Your task to perform on an android device: delete a single message in the gmail app Image 0: 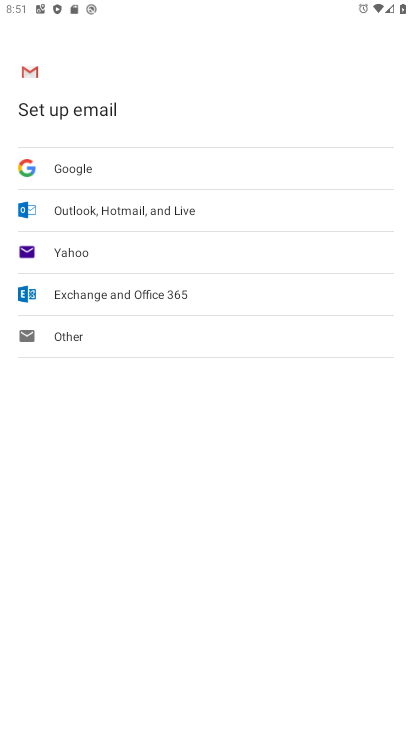
Step 0: press home button
Your task to perform on an android device: delete a single message in the gmail app Image 1: 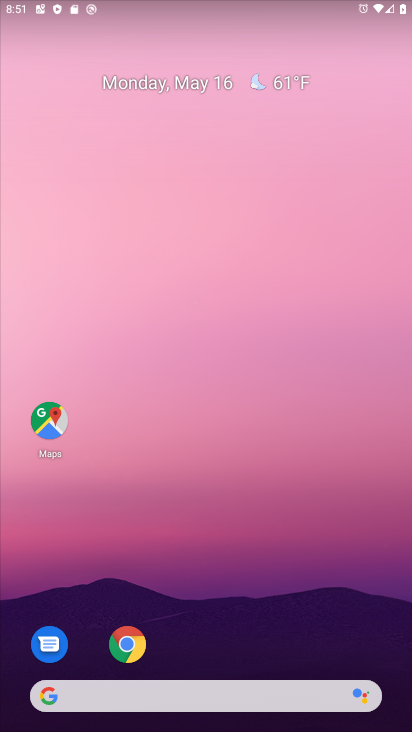
Step 1: drag from (243, 594) to (235, 217)
Your task to perform on an android device: delete a single message in the gmail app Image 2: 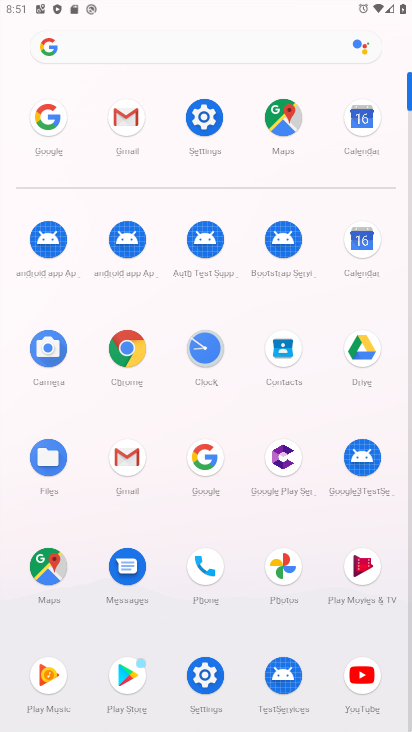
Step 2: click (129, 118)
Your task to perform on an android device: delete a single message in the gmail app Image 3: 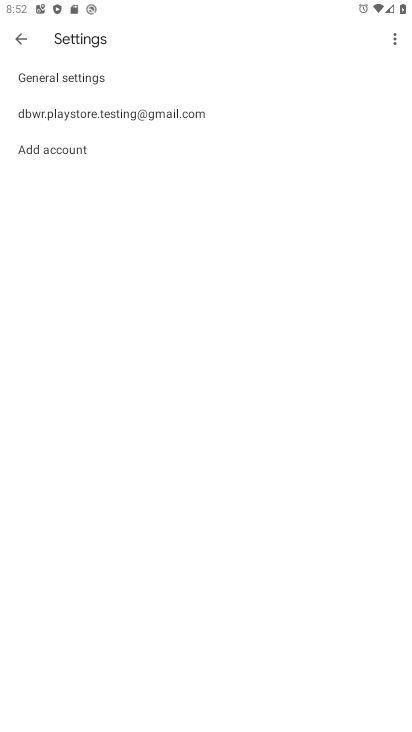
Step 3: press back button
Your task to perform on an android device: delete a single message in the gmail app Image 4: 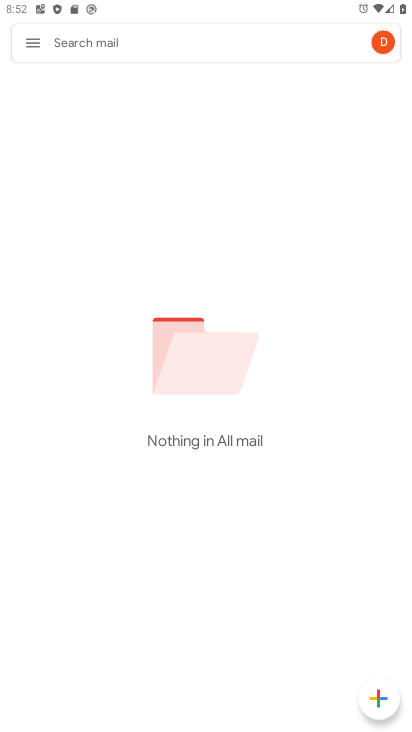
Step 4: click (14, 38)
Your task to perform on an android device: delete a single message in the gmail app Image 5: 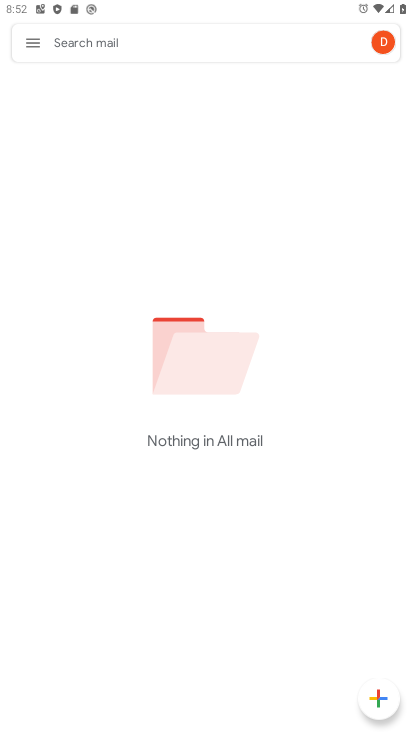
Step 5: click (31, 45)
Your task to perform on an android device: delete a single message in the gmail app Image 6: 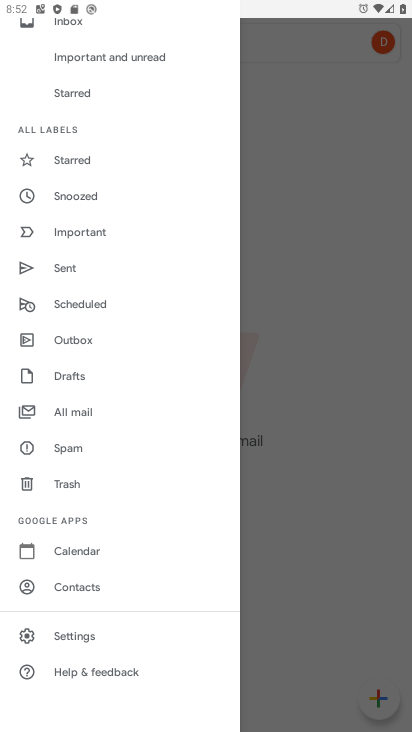
Step 6: click (77, 409)
Your task to perform on an android device: delete a single message in the gmail app Image 7: 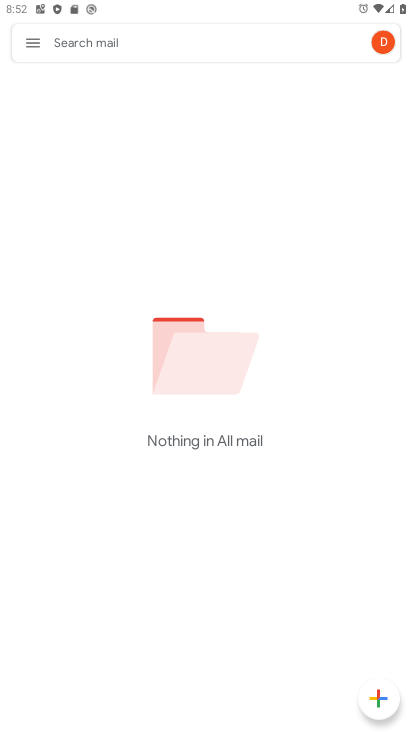
Step 7: task complete